Your task to perform on an android device: add a contact Image 0: 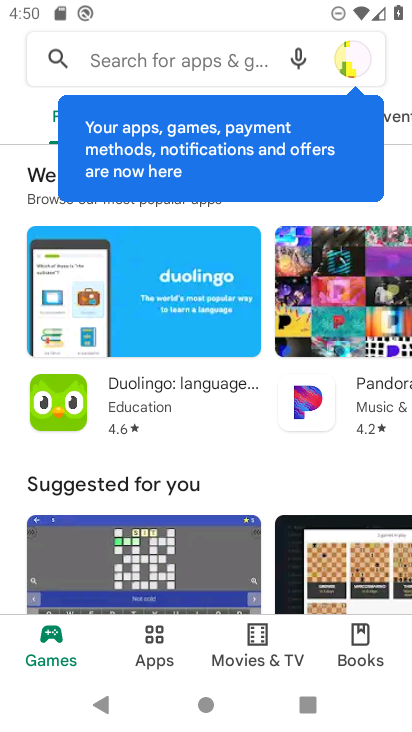
Step 0: press home button
Your task to perform on an android device: add a contact Image 1: 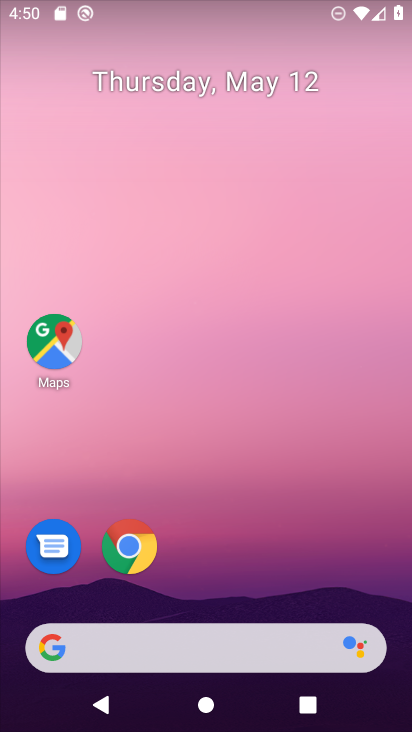
Step 1: drag from (263, 609) to (290, 253)
Your task to perform on an android device: add a contact Image 2: 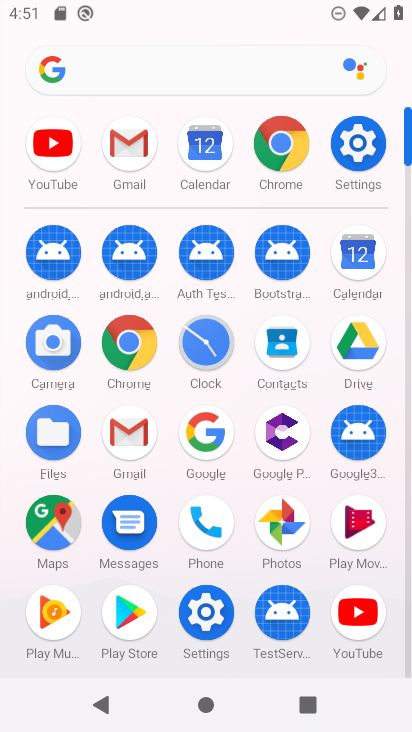
Step 2: click (195, 519)
Your task to perform on an android device: add a contact Image 3: 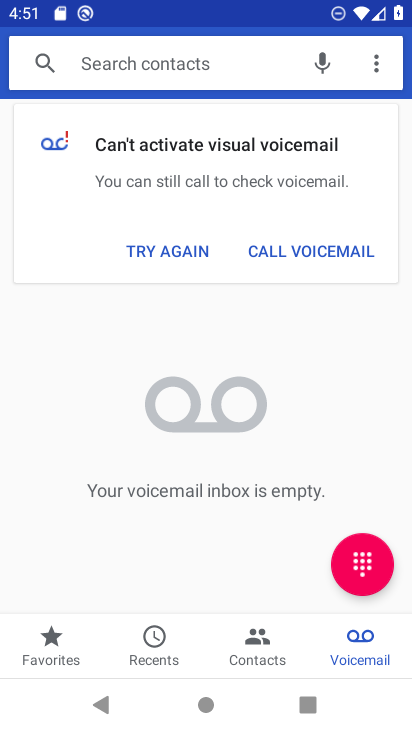
Step 3: click (157, 637)
Your task to perform on an android device: add a contact Image 4: 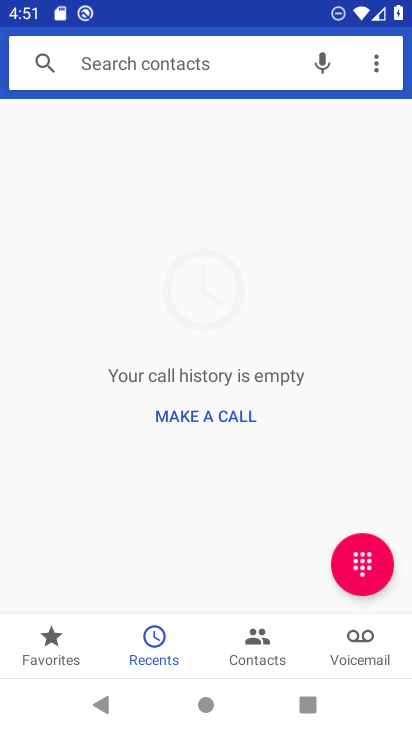
Step 4: click (258, 642)
Your task to perform on an android device: add a contact Image 5: 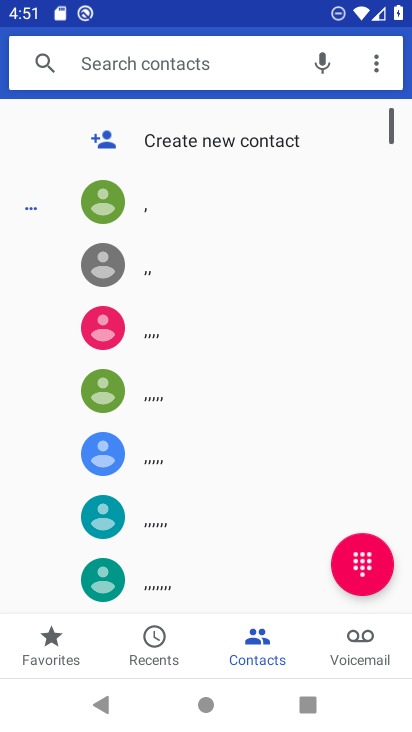
Step 5: click (240, 135)
Your task to perform on an android device: add a contact Image 6: 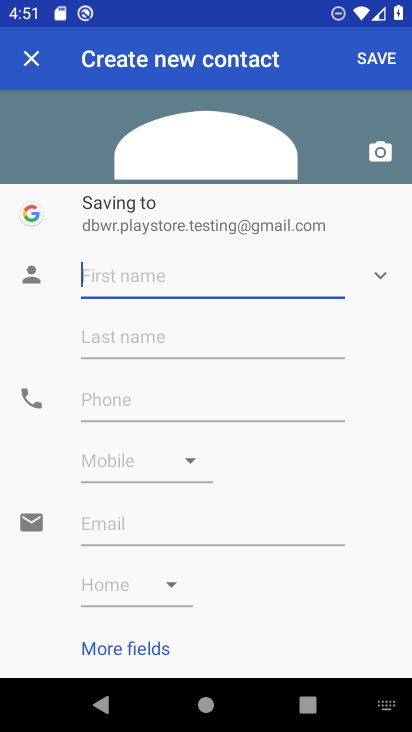
Step 6: click (209, 280)
Your task to perform on an android device: add a contact Image 7: 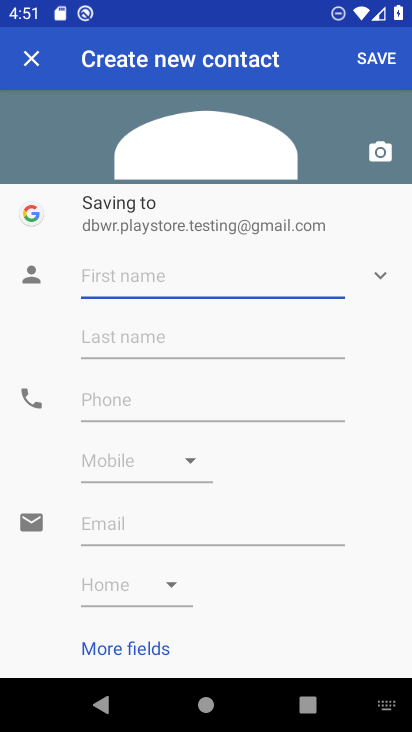
Step 7: type "ffffffffffffl"
Your task to perform on an android device: add a contact Image 8: 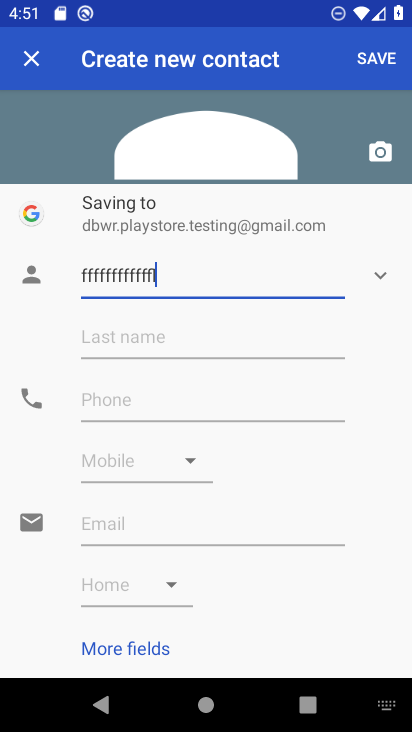
Step 8: click (200, 322)
Your task to perform on an android device: add a contact Image 9: 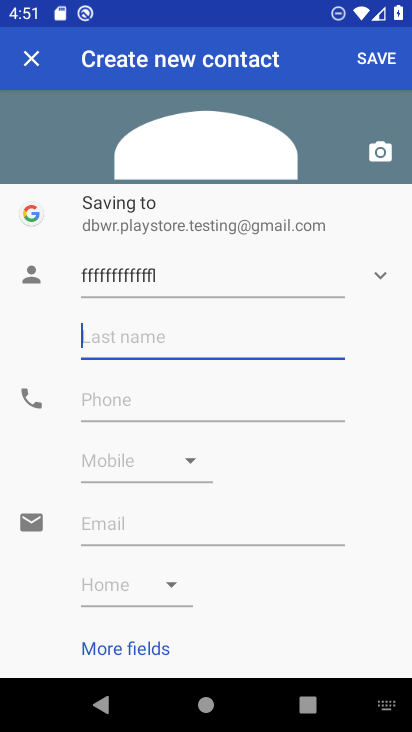
Step 9: type "3333333333333"
Your task to perform on an android device: add a contact Image 10: 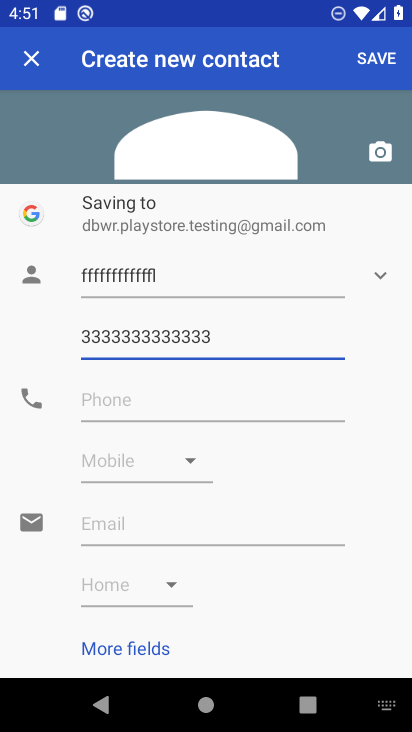
Step 10: click (375, 58)
Your task to perform on an android device: add a contact Image 11: 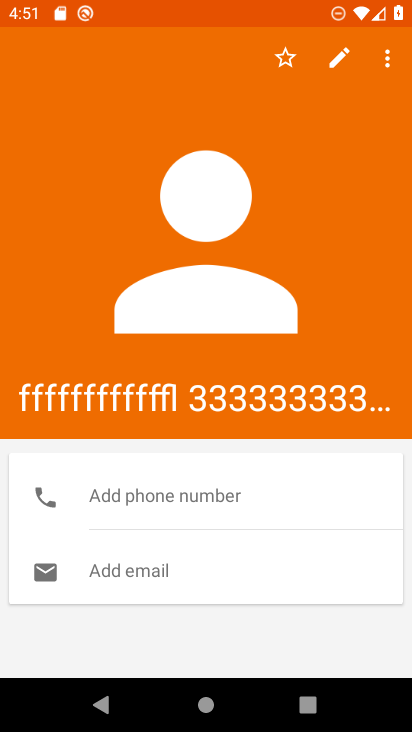
Step 11: task complete